Your task to perform on an android device: change alarm snooze length Image 0: 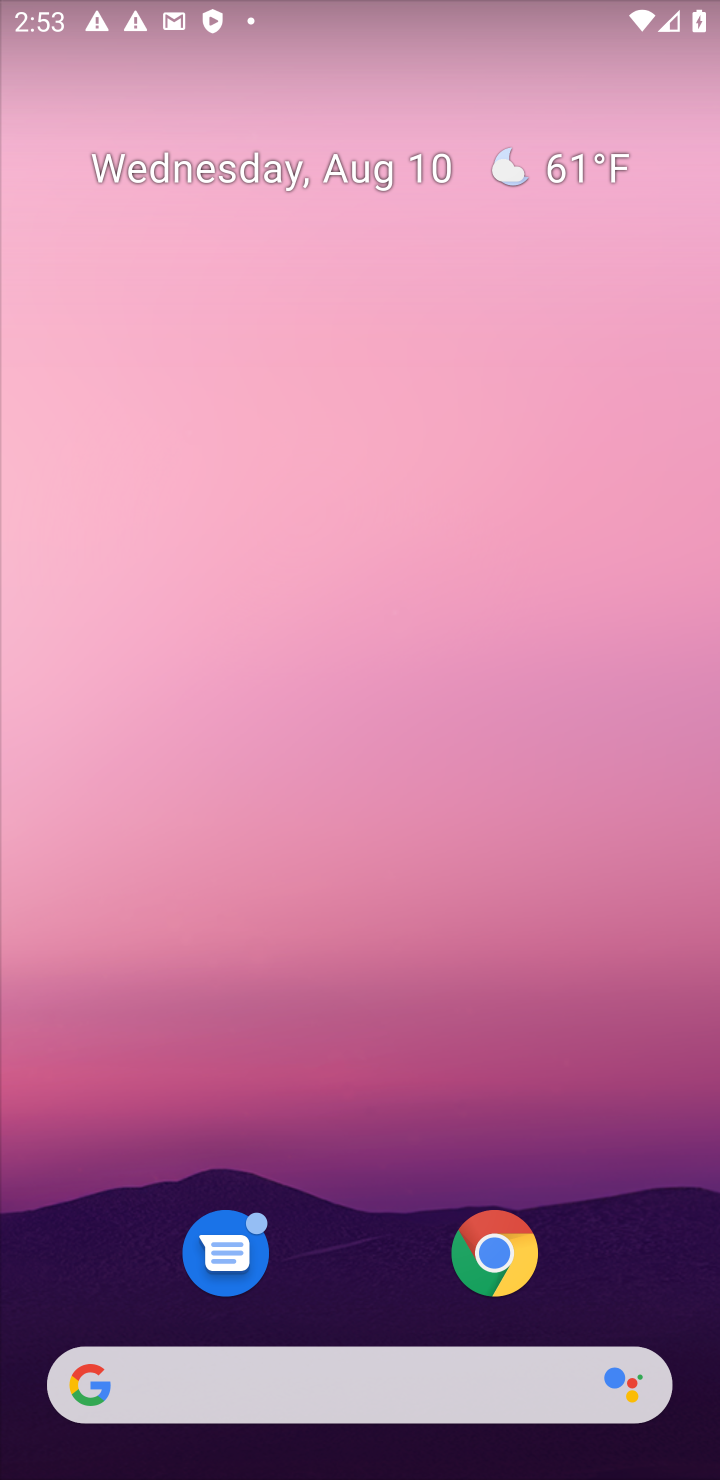
Step 0: drag from (371, 1035) to (451, 74)
Your task to perform on an android device: change alarm snooze length Image 1: 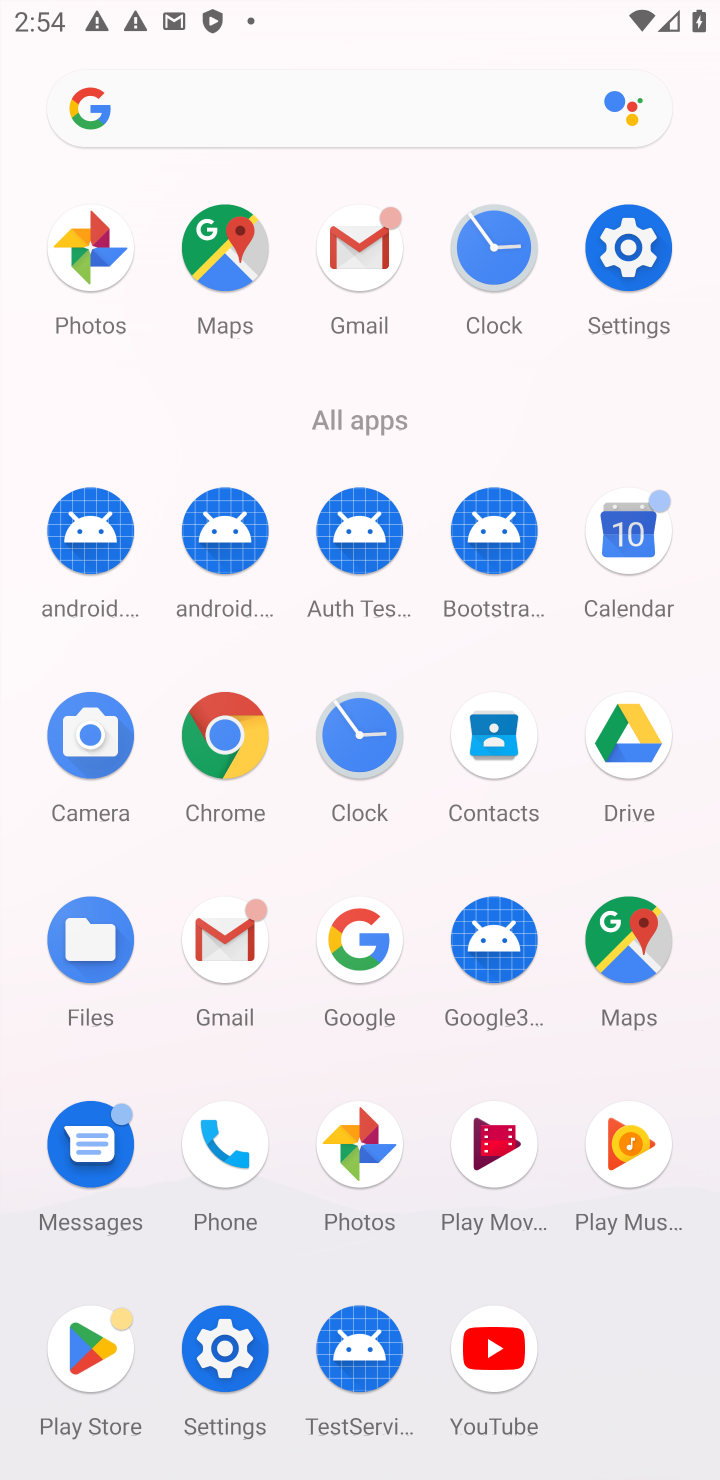
Step 1: click (649, 270)
Your task to perform on an android device: change alarm snooze length Image 2: 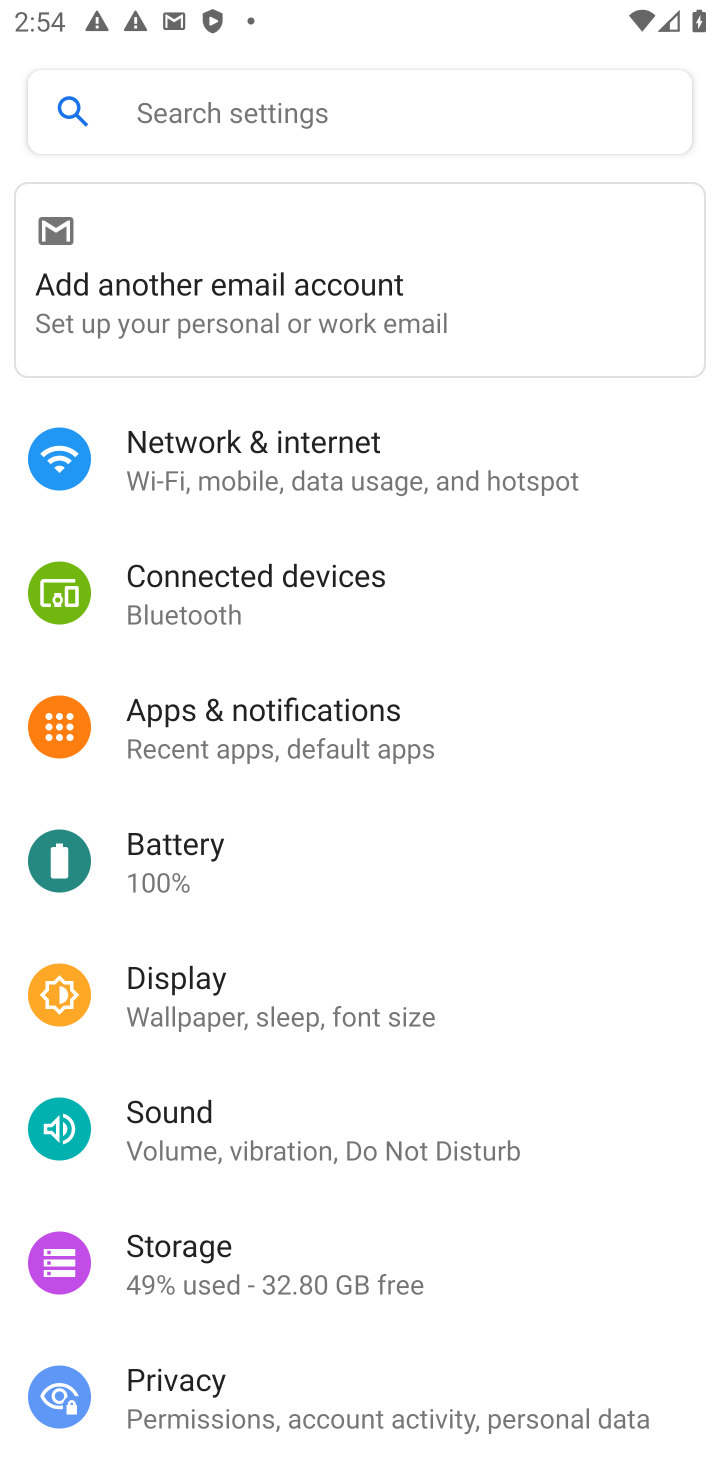
Step 2: task complete